Your task to perform on an android device: refresh tabs in the chrome app Image 0: 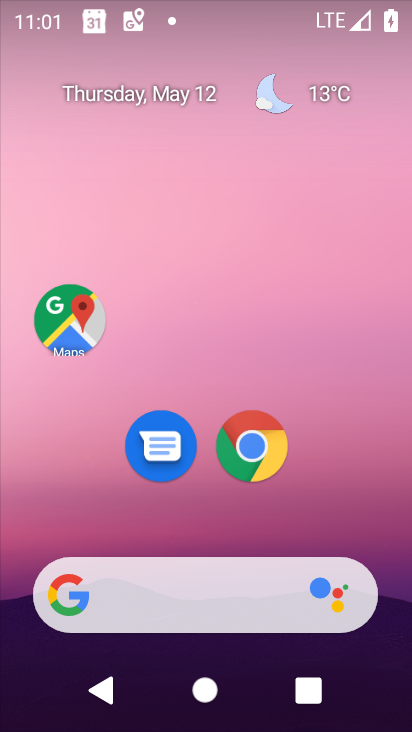
Step 0: drag from (189, 510) to (232, 48)
Your task to perform on an android device: refresh tabs in the chrome app Image 1: 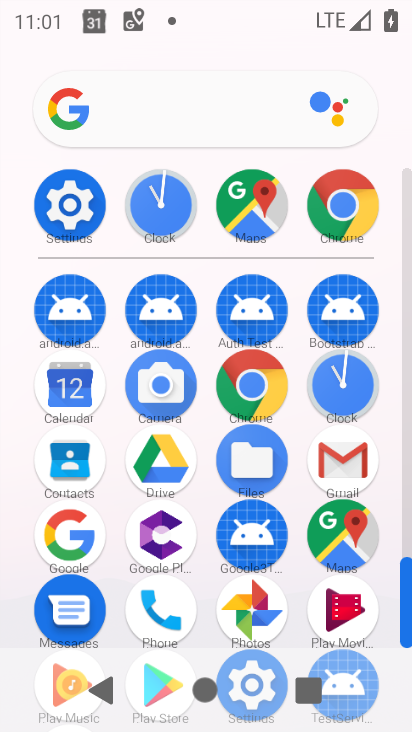
Step 1: click (260, 383)
Your task to perform on an android device: refresh tabs in the chrome app Image 2: 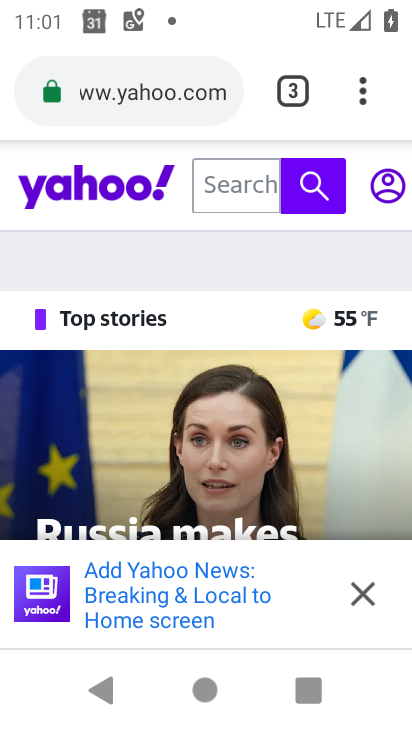
Step 2: task complete